Your task to perform on an android device: empty trash in google photos Image 0: 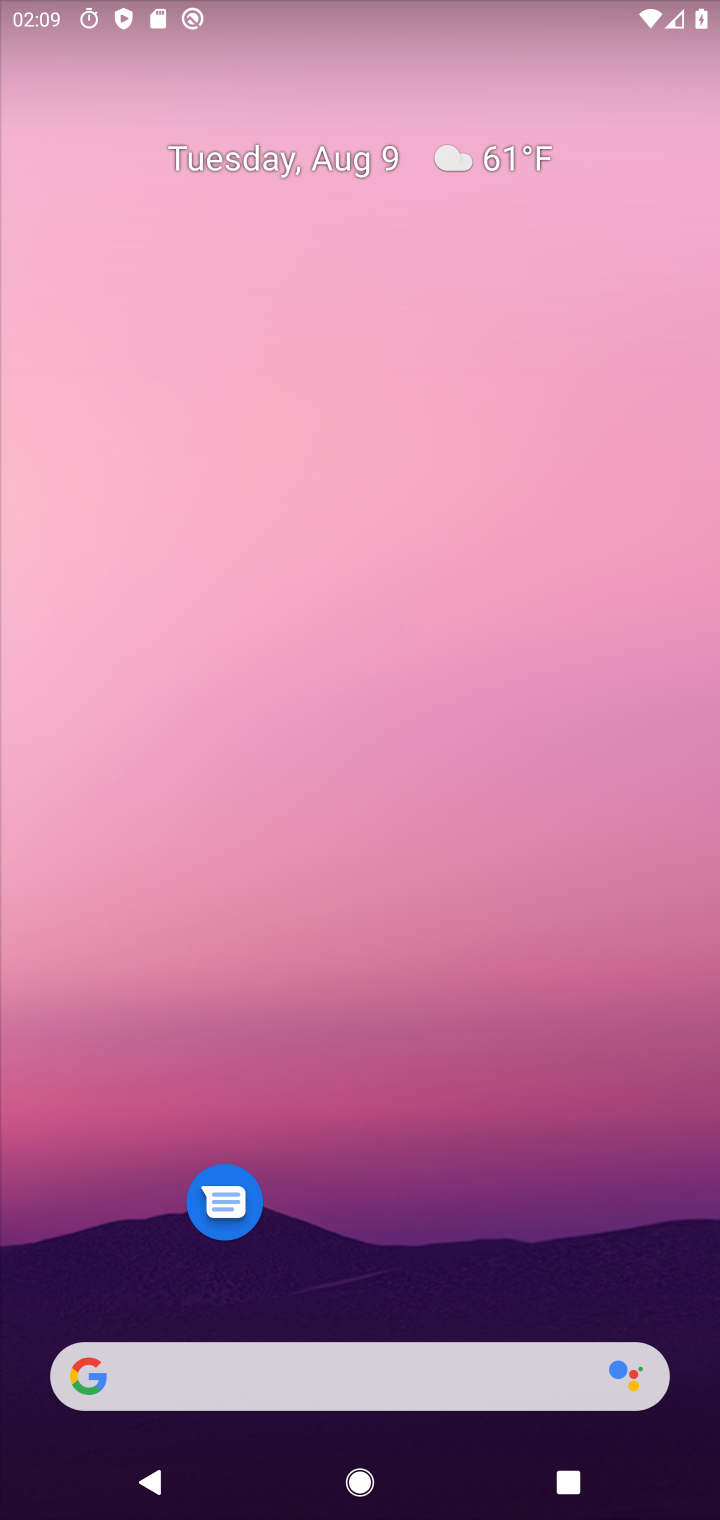
Step 0: drag from (370, 1327) to (444, 40)
Your task to perform on an android device: empty trash in google photos Image 1: 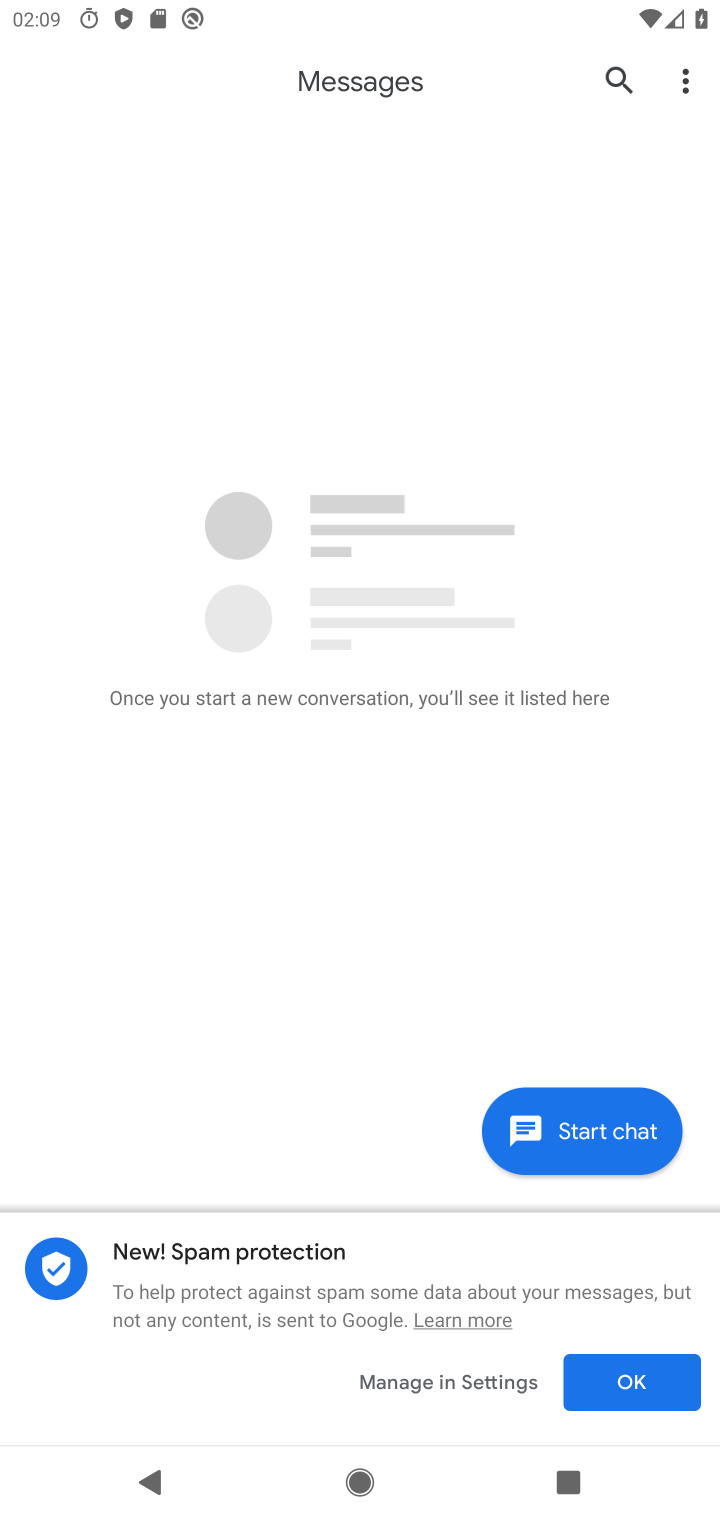
Step 1: press home button
Your task to perform on an android device: empty trash in google photos Image 2: 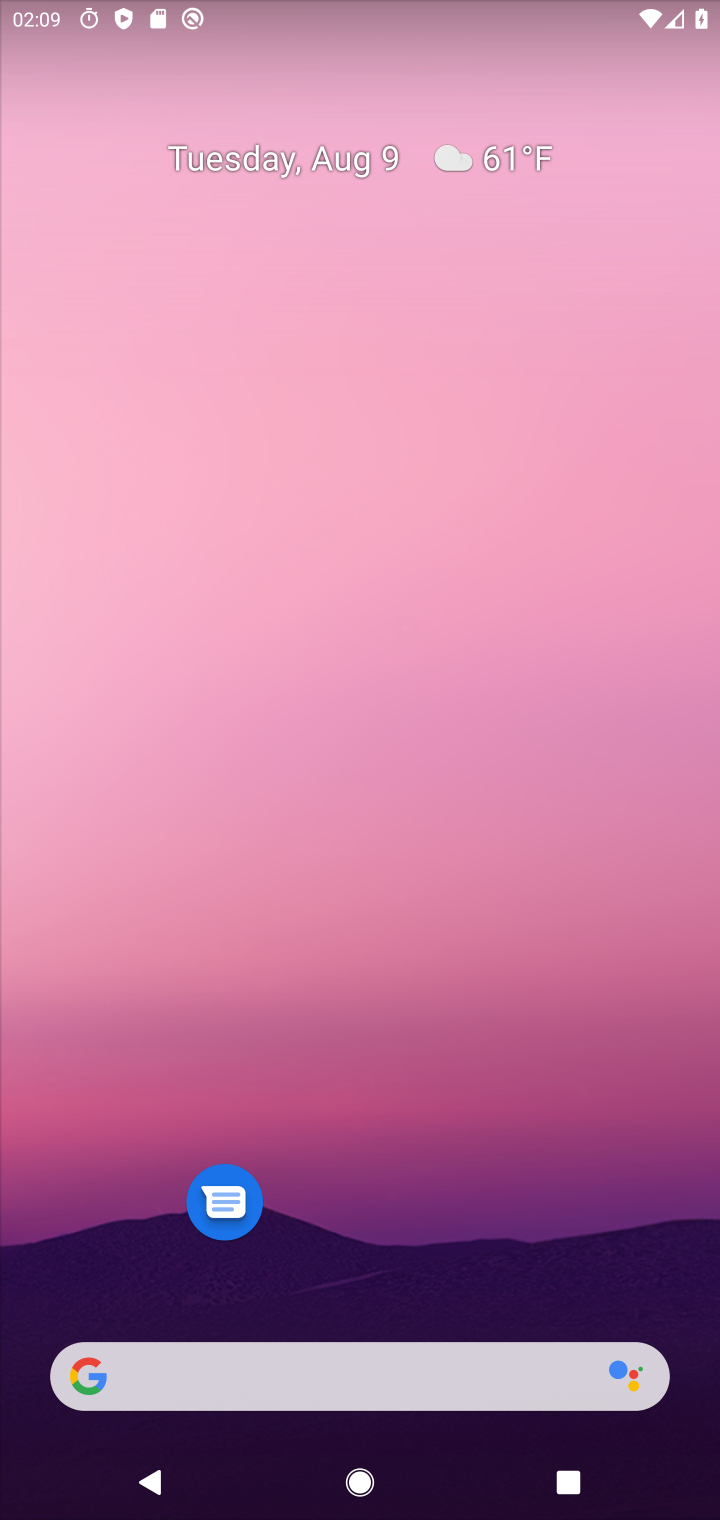
Step 2: drag from (352, 1386) to (336, 64)
Your task to perform on an android device: empty trash in google photos Image 3: 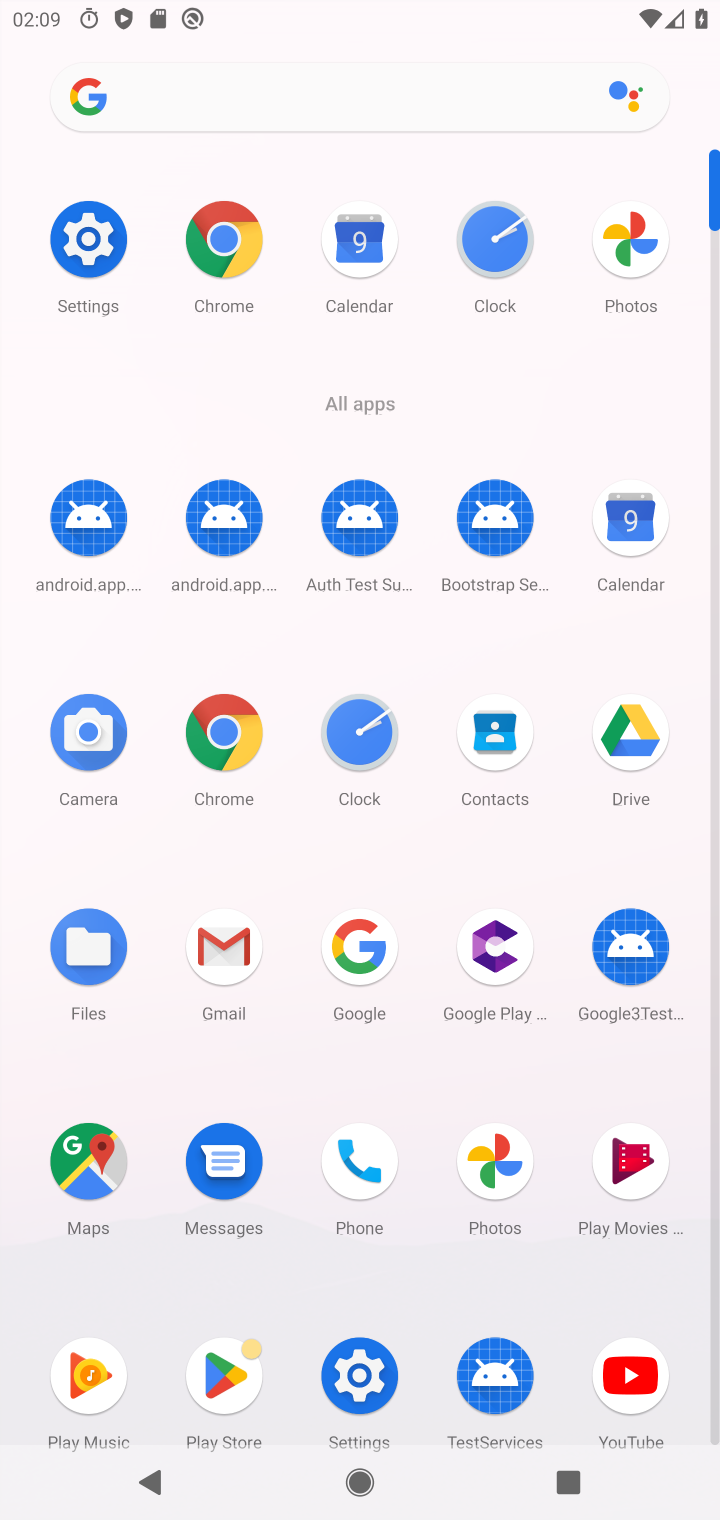
Step 3: click (507, 1144)
Your task to perform on an android device: empty trash in google photos Image 4: 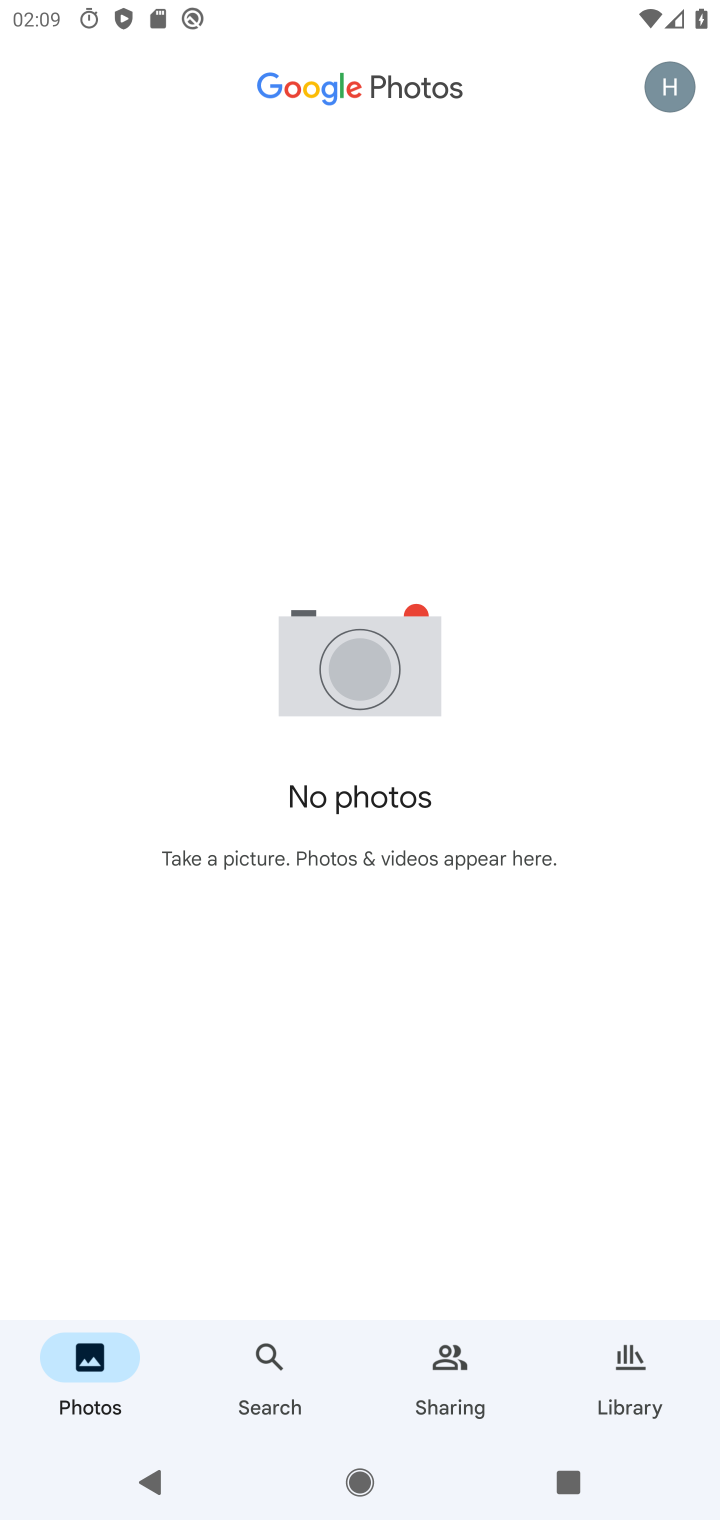
Step 4: click (634, 1353)
Your task to perform on an android device: empty trash in google photos Image 5: 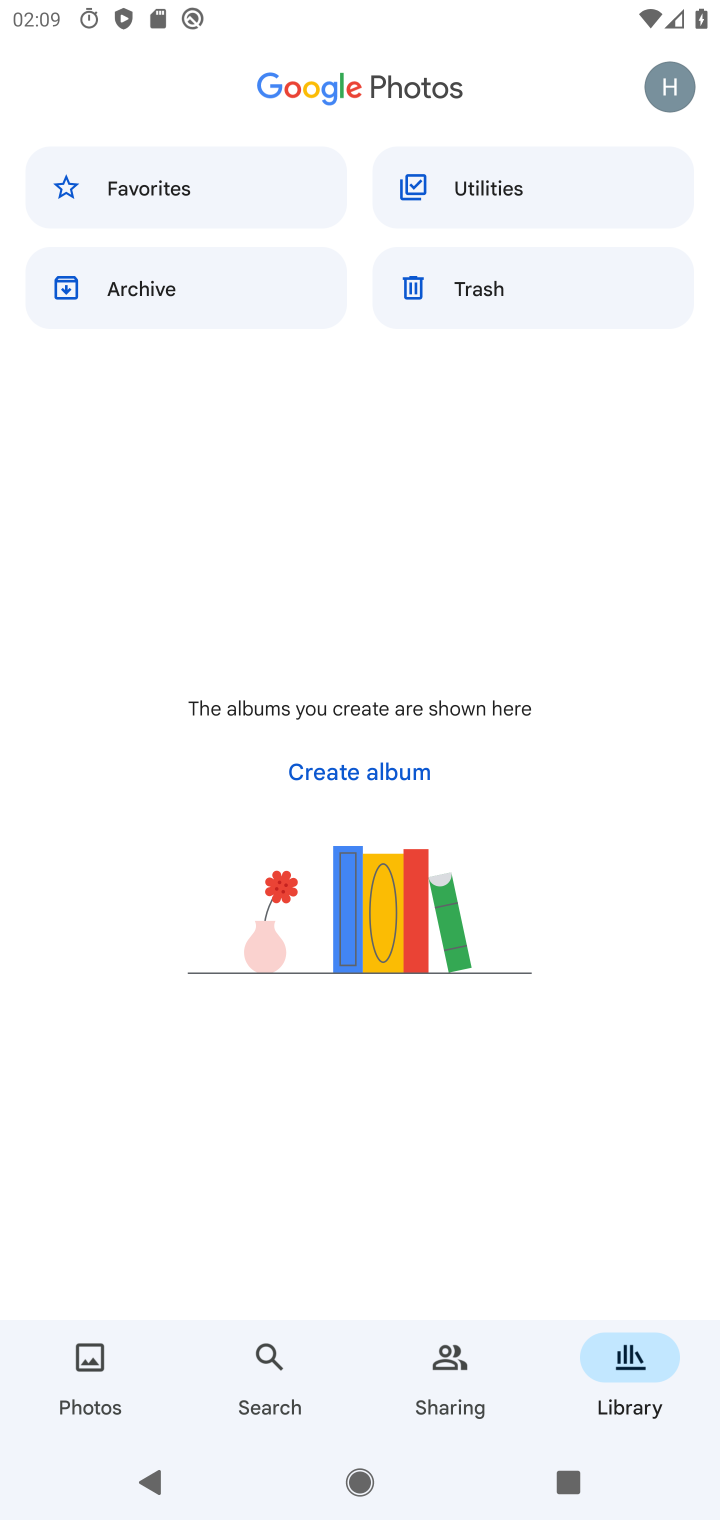
Step 5: click (444, 300)
Your task to perform on an android device: empty trash in google photos Image 6: 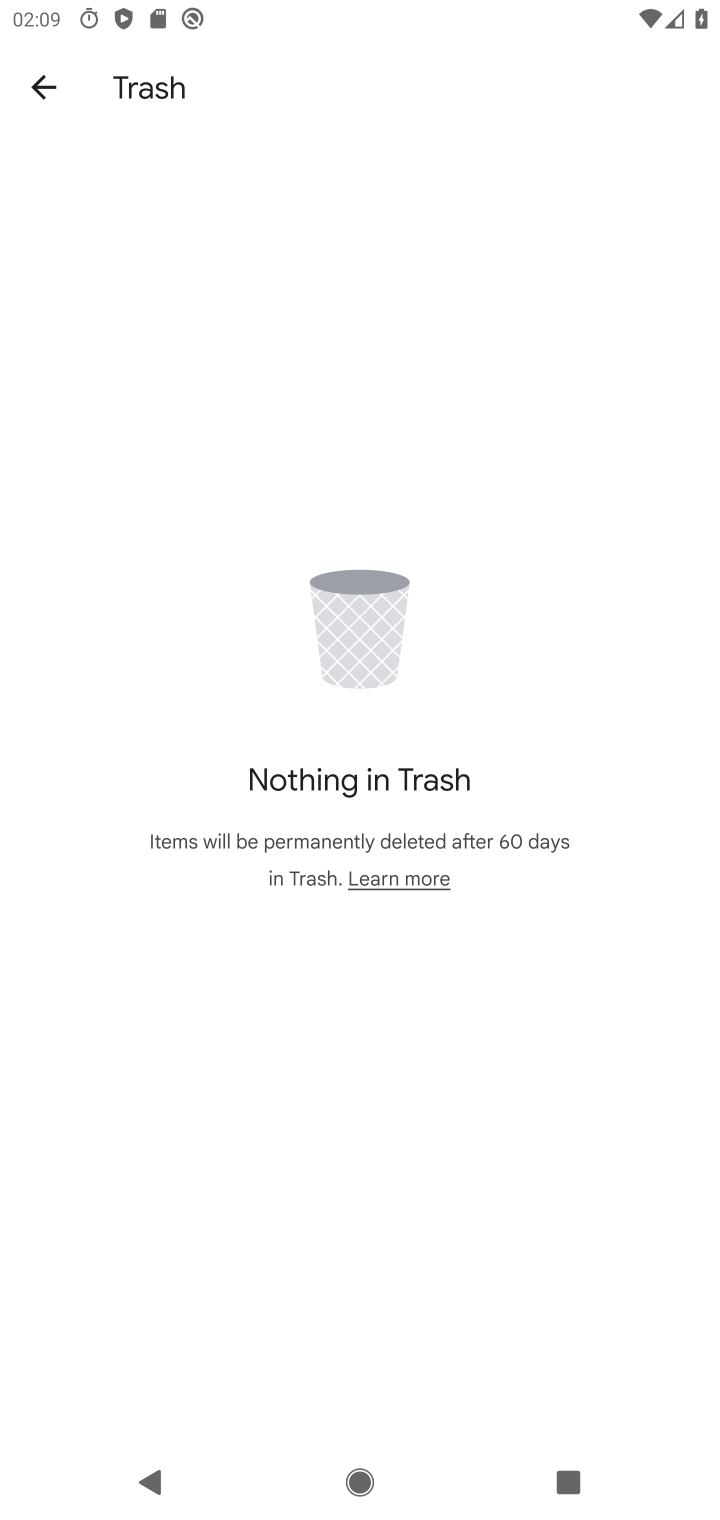
Step 6: task complete